Your task to perform on an android device: Open Google Chrome and open the bookmarks view Image 0: 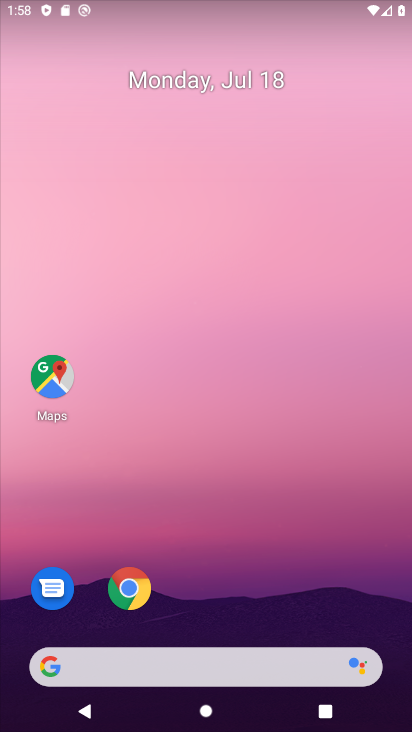
Step 0: drag from (312, 620) to (224, 106)
Your task to perform on an android device: Open Google Chrome and open the bookmarks view Image 1: 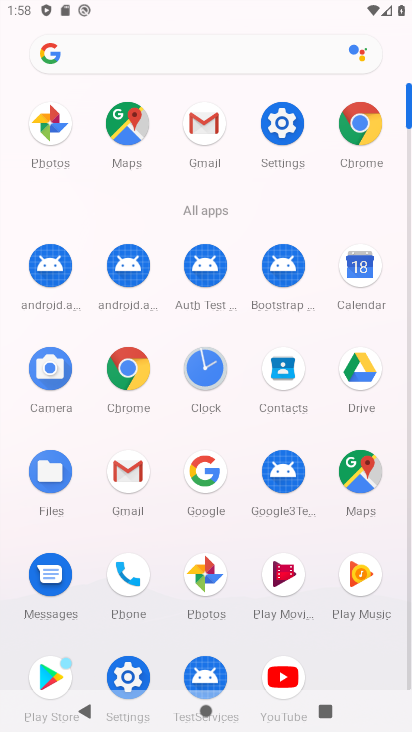
Step 1: click (358, 146)
Your task to perform on an android device: Open Google Chrome and open the bookmarks view Image 2: 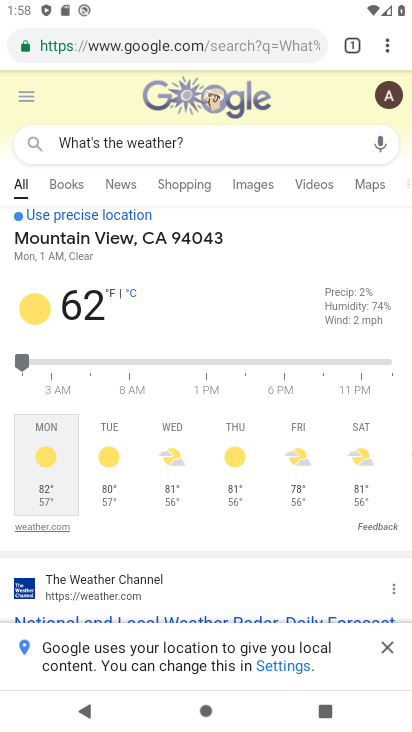
Step 2: click (389, 42)
Your task to perform on an android device: Open Google Chrome and open the bookmarks view Image 3: 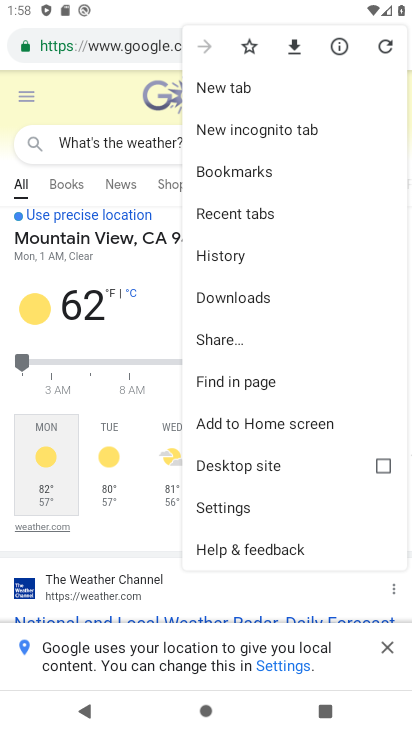
Step 3: click (264, 175)
Your task to perform on an android device: Open Google Chrome and open the bookmarks view Image 4: 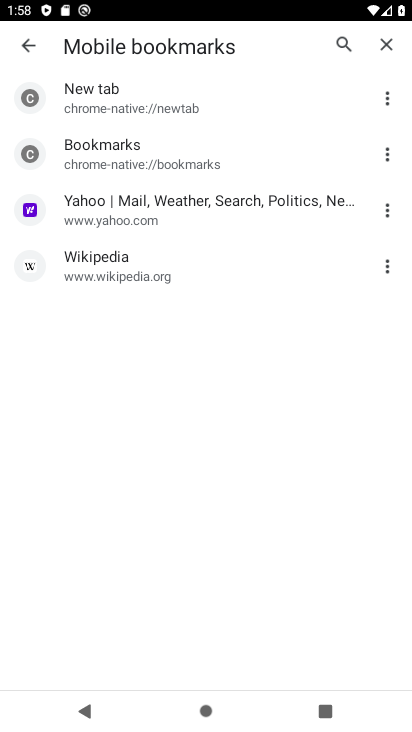
Step 4: task complete